Your task to perform on an android device: add a label to a message in the gmail app Image 0: 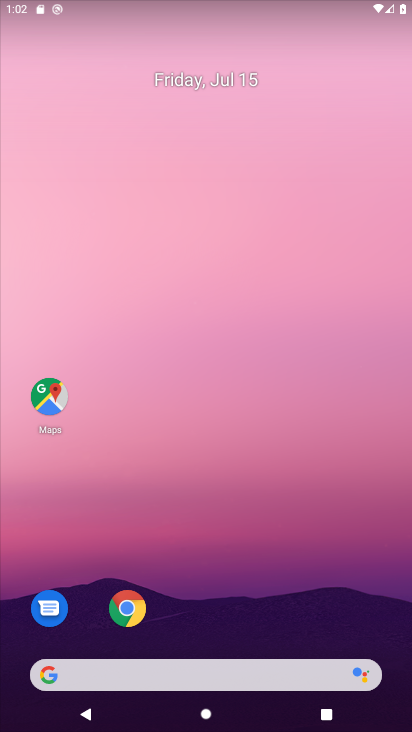
Step 0: drag from (185, 635) to (265, 148)
Your task to perform on an android device: add a label to a message in the gmail app Image 1: 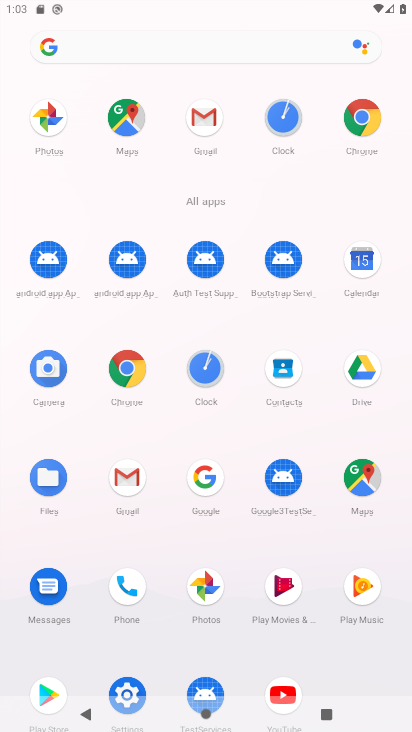
Step 1: click (124, 479)
Your task to perform on an android device: add a label to a message in the gmail app Image 2: 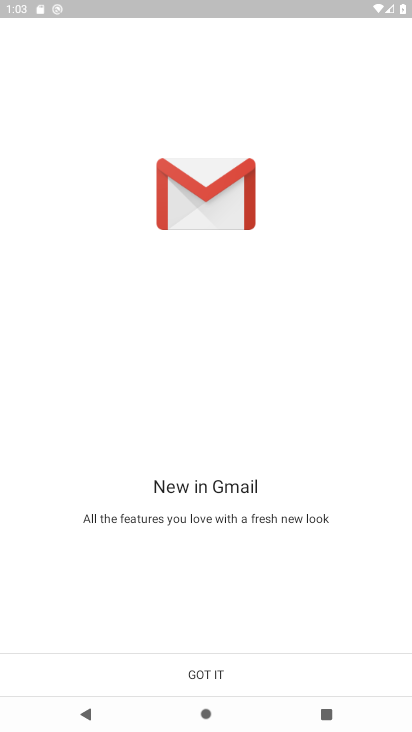
Step 2: click (218, 671)
Your task to perform on an android device: add a label to a message in the gmail app Image 3: 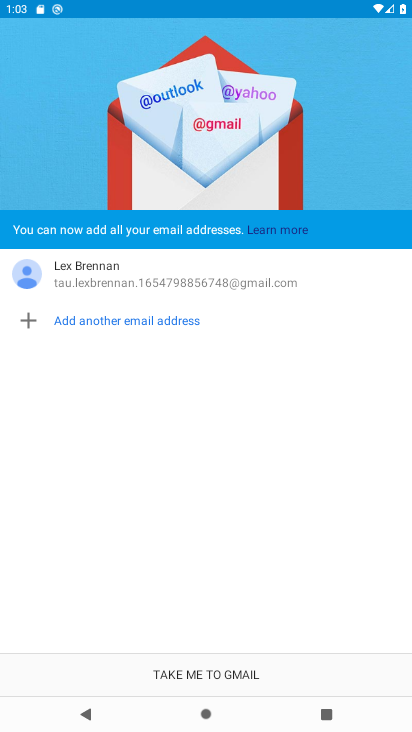
Step 3: click (224, 657)
Your task to perform on an android device: add a label to a message in the gmail app Image 4: 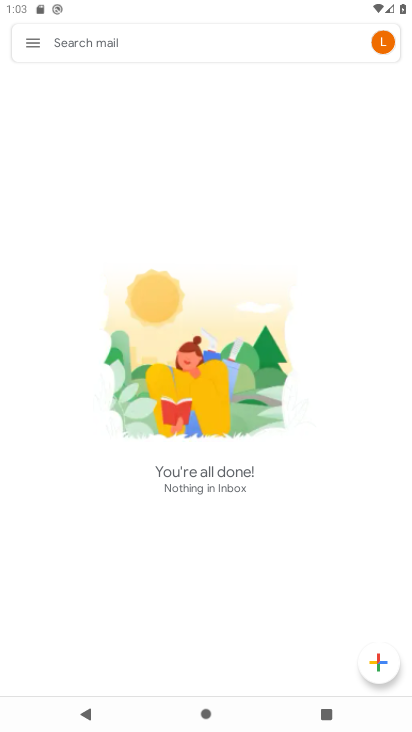
Step 4: click (29, 42)
Your task to perform on an android device: add a label to a message in the gmail app Image 5: 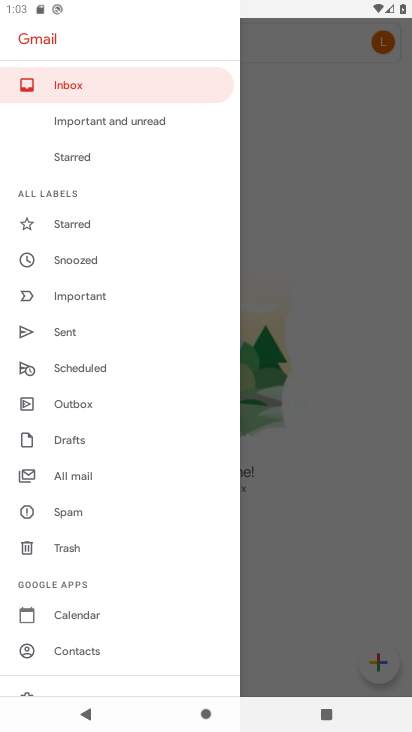
Step 5: click (110, 481)
Your task to perform on an android device: add a label to a message in the gmail app Image 6: 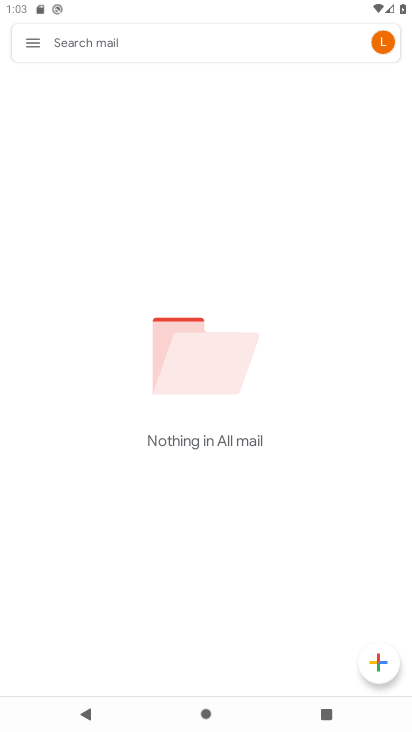
Step 6: task complete